Your task to perform on an android device: Check the news Image 0: 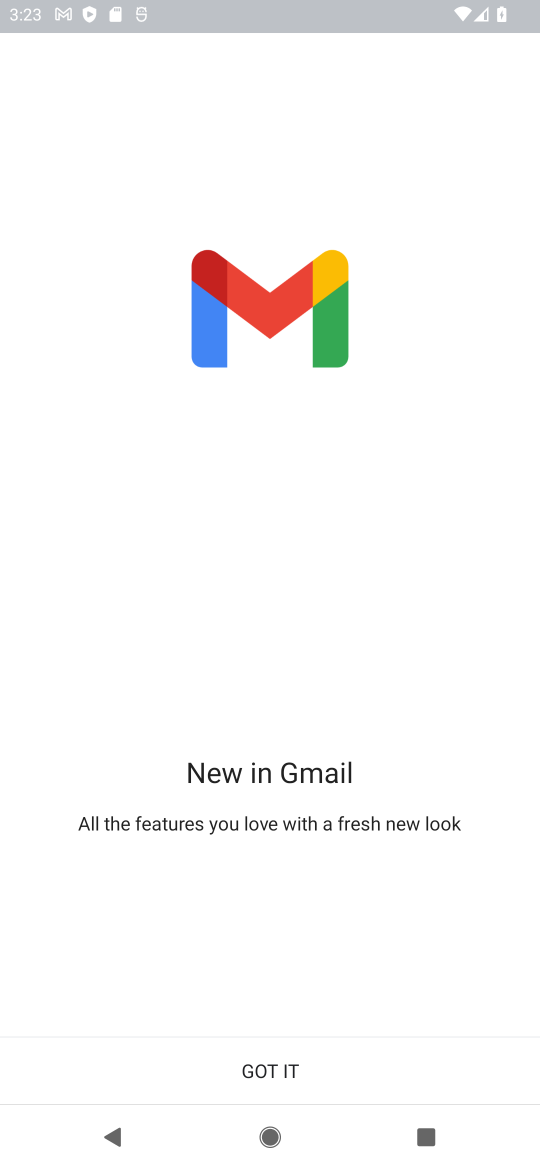
Step 0: press home button
Your task to perform on an android device: Check the news Image 1: 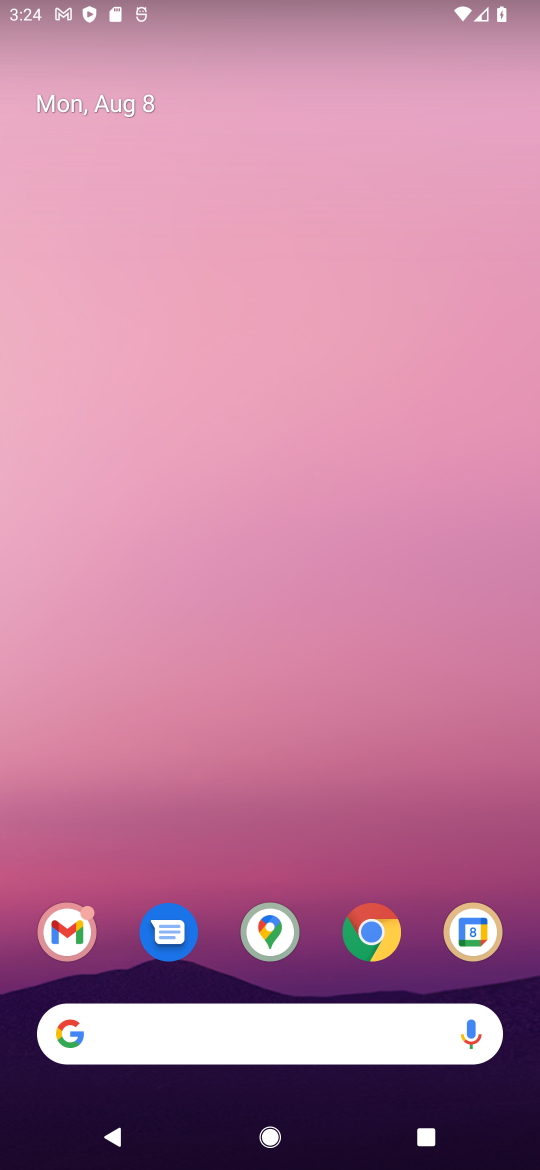
Step 1: click (185, 1038)
Your task to perform on an android device: Check the news Image 2: 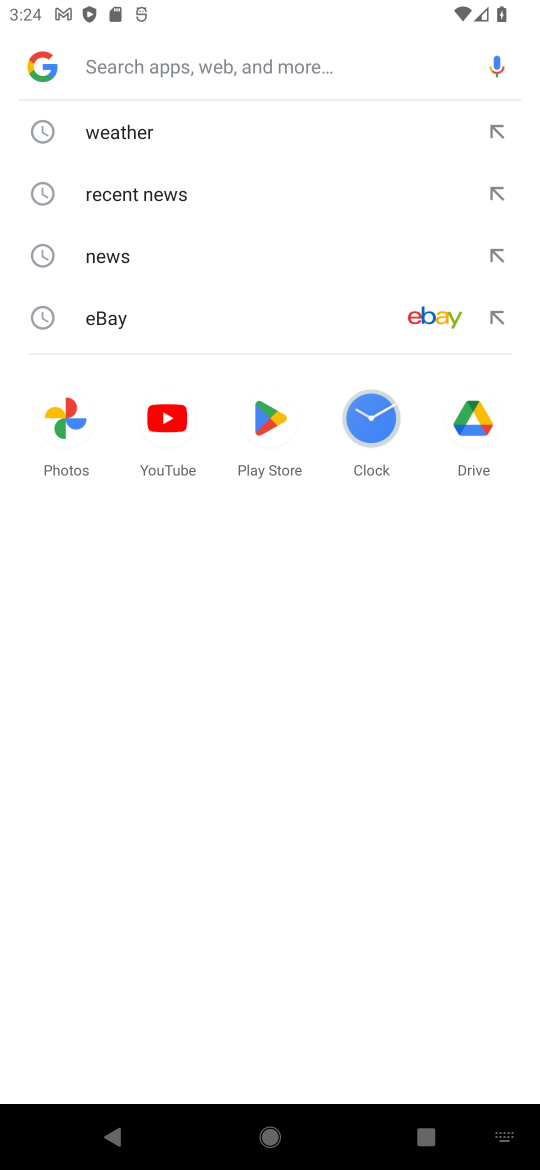
Step 2: click (90, 254)
Your task to perform on an android device: Check the news Image 3: 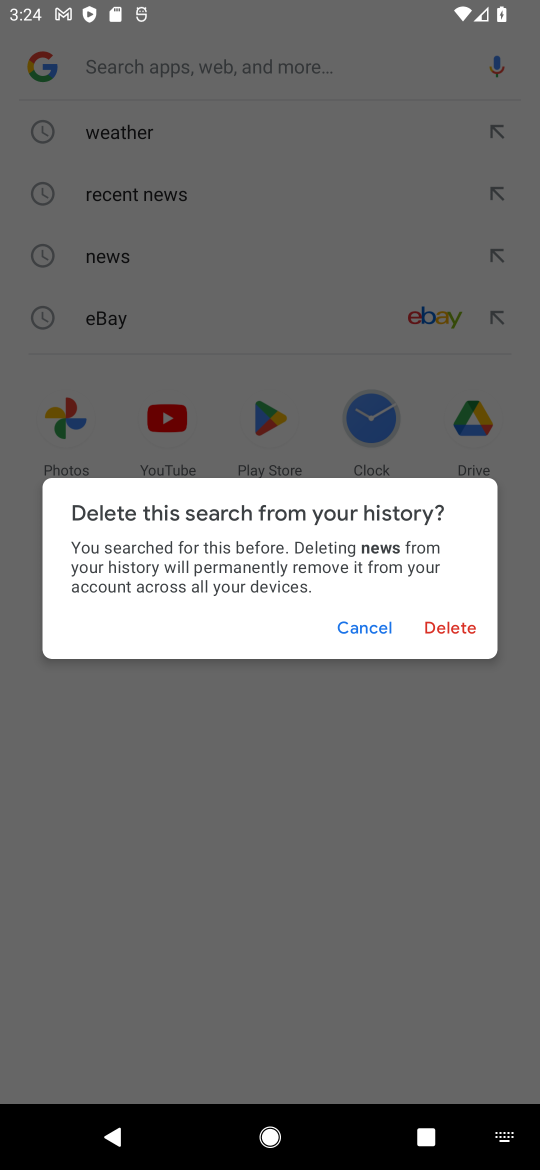
Step 3: click (364, 622)
Your task to perform on an android device: Check the news Image 4: 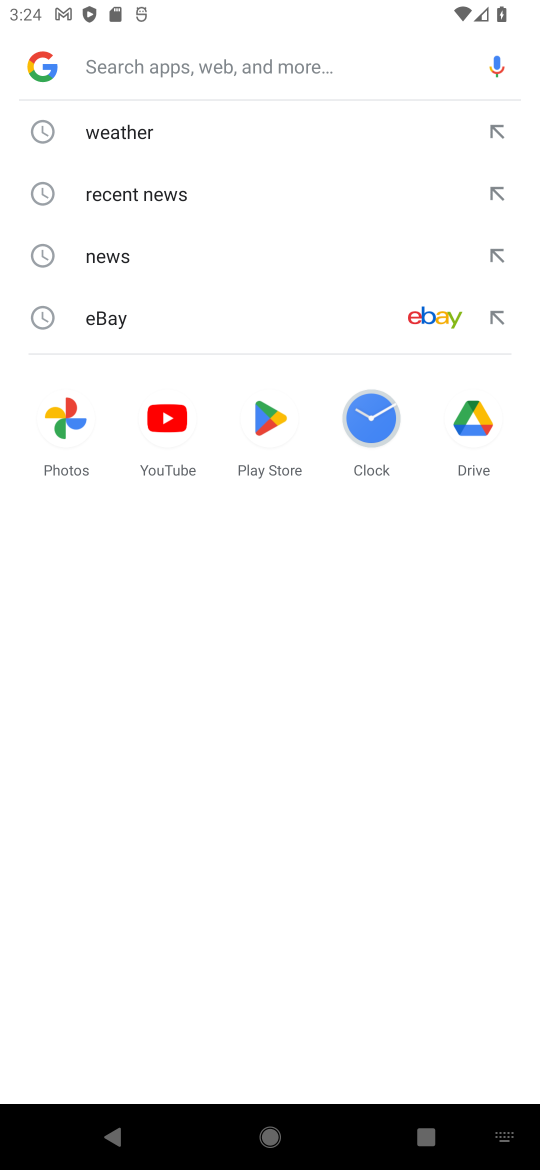
Step 4: click (115, 248)
Your task to perform on an android device: Check the news Image 5: 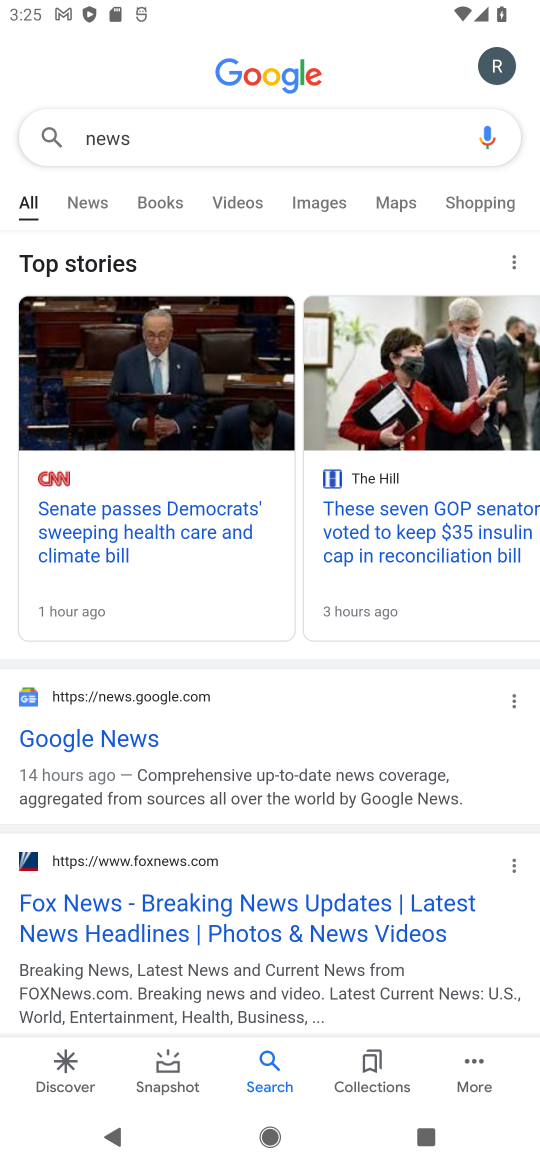
Step 5: task complete